Your task to perform on an android device: Go to settings Image 0: 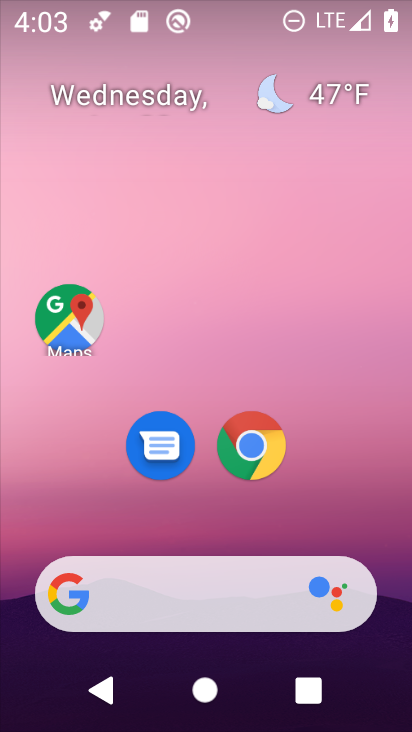
Step 0: drag from (335, 527) to (409, 163)
Your task to perform on an android device: Go to settings Image 1: 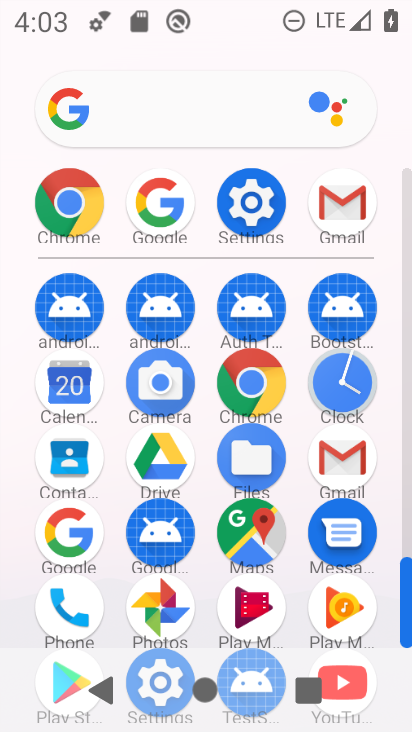
Step 1: drag from (291, 357) to (347, 104)
Your task to perform on an android device: Go to settings Image 2: 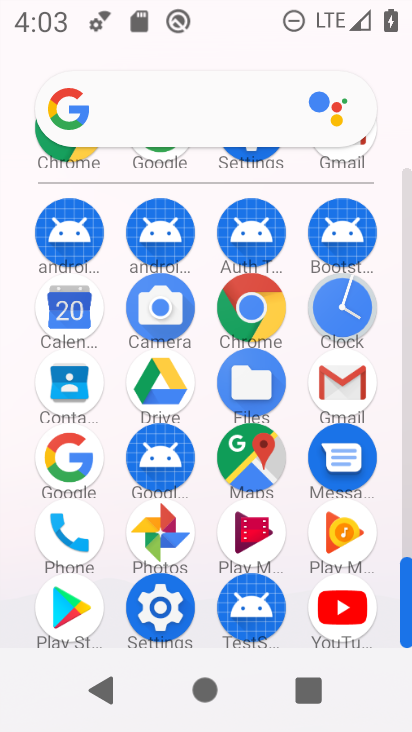
Step 2: drag from (301, 353) to (342, 121)
Your task to perform on an android device: Go to settings Image 3: 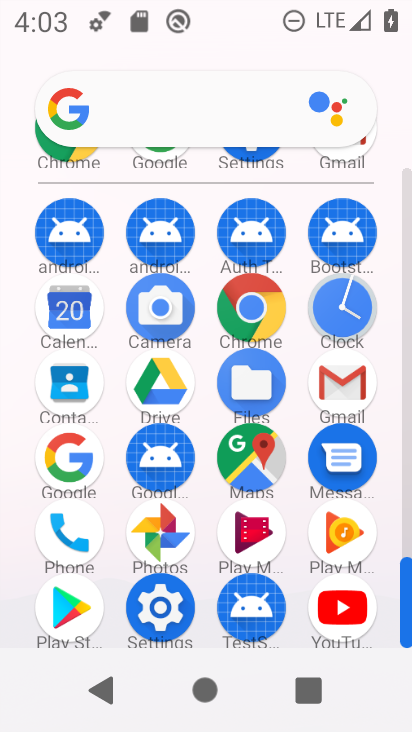
Step 3: click (177, 617)
Your task to perform on an android device: Go to settings Image 4: 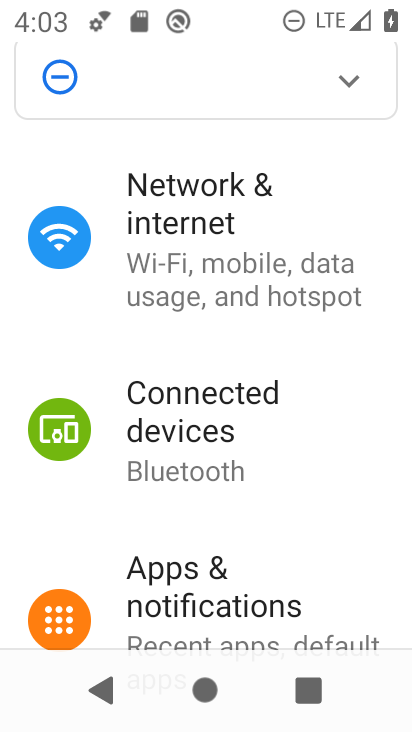
Step 4: task complete